Your task to perform on an android device: change the clock display to digital Image 0: 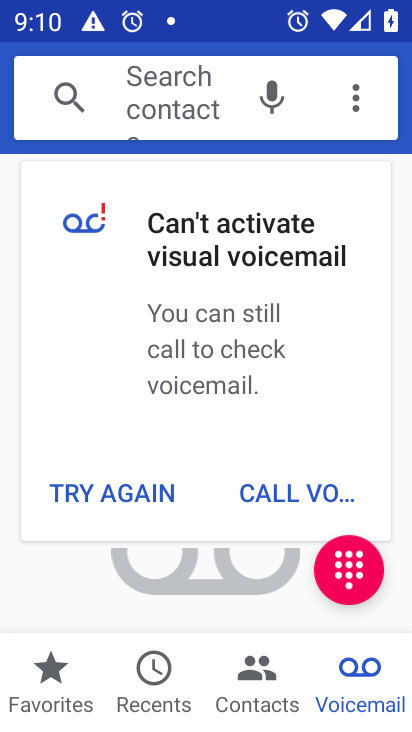
Step 0: press home button
Your task to perform on an android device: change the clock display to digital Image 1: 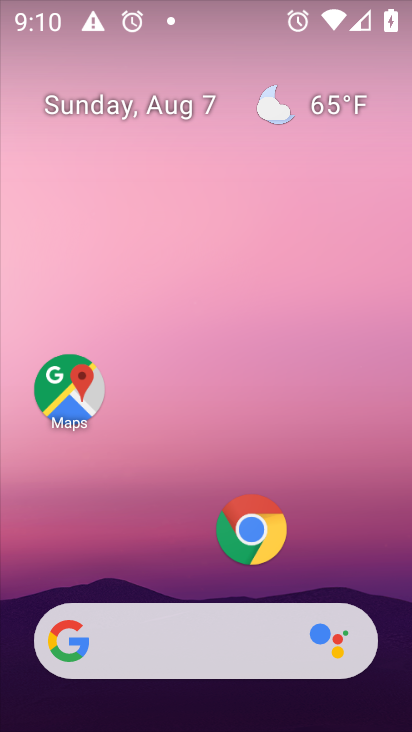
Step 1: drag from (145, 571) to (163, 92)
Your task to perform on an android device: change the clock display to digital Image 2: 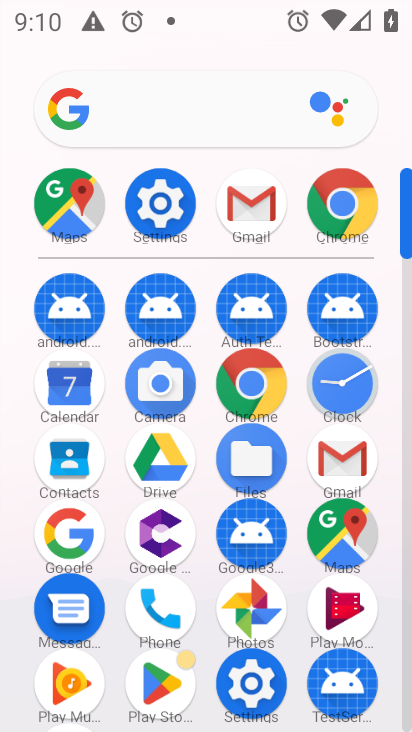
Step 2: click (348, 391)
Your task to perform on an android device: change the clock display to digital Image 3: 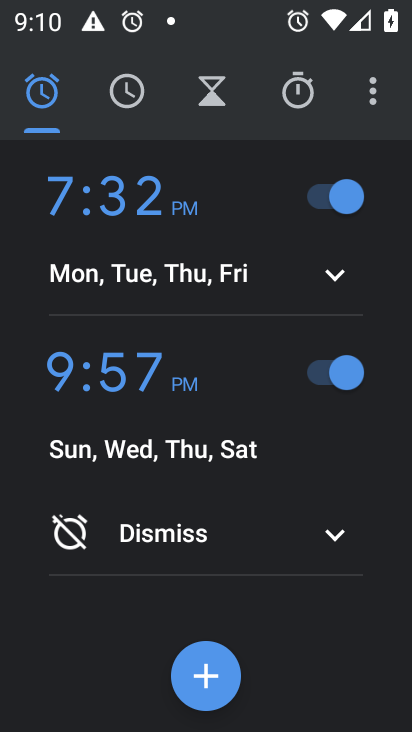
Step 3: click (354, 100)
Your task to perform on an android device: change the clock display to digital Image 4: 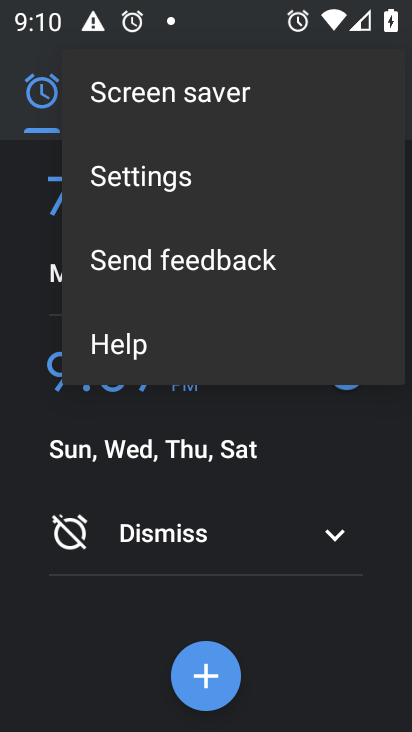
Step 4: click (154, 177)
Your task to perform on an android device: change the clock display to digital Image 5: 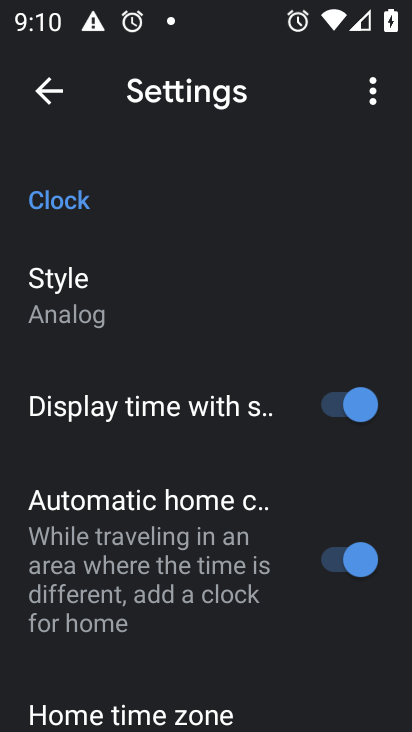
Step 5: click (115, 315)
Your task to perform on an android device: change the clock display to digital Image 6: 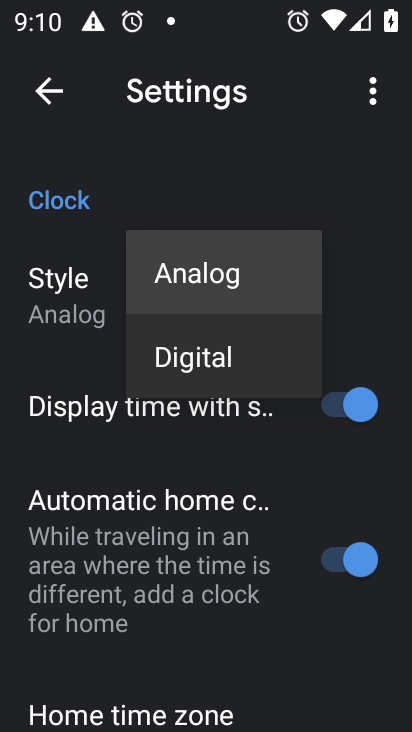
Step 6: click (162, 357)
Your task to perform on an android device: change the clock display to digital Image 7: 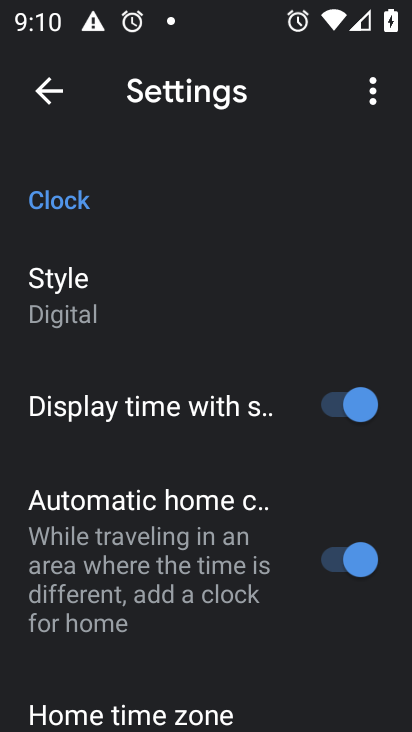
Step 7: task complete